Your task to perform on an android device: What is the news today? Image 0: 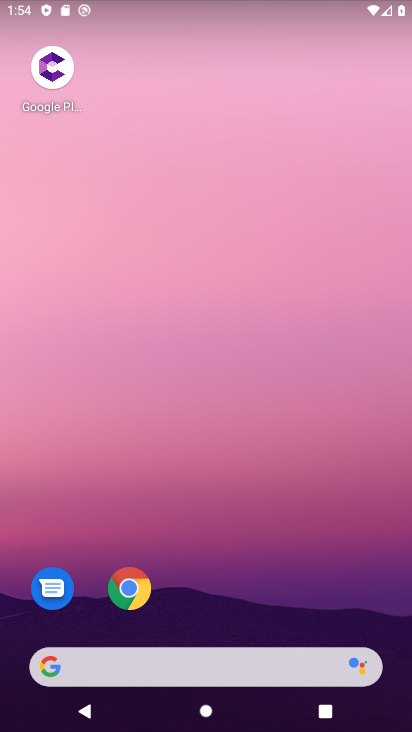
Step 0: drag from (0, 273) to (374, 277)
Your task to perform on an android device: What is the news today? Image 1: 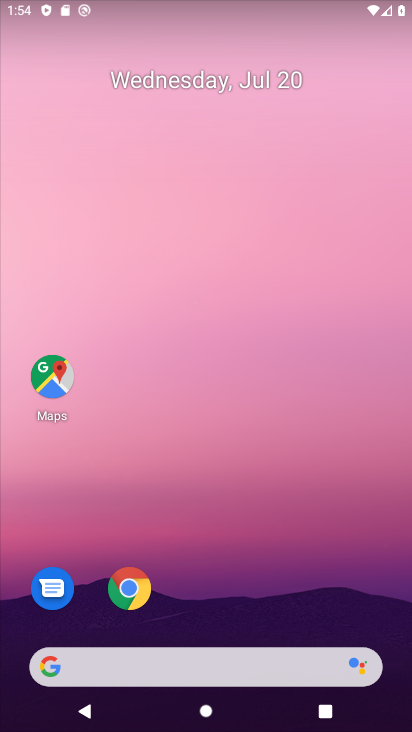
Step 1: task complete